Your task to perform on an android device: add a contact in the contacts app Image 0: 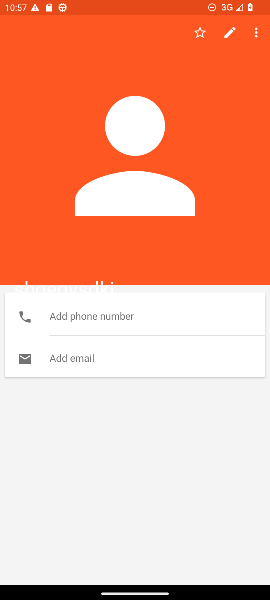
Step 0: press home button
Your task to perform on an android device: add a contact in the contacts app Image 1: 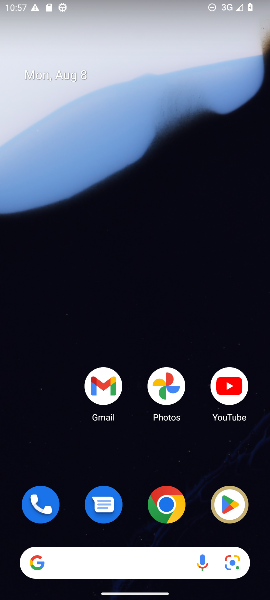
Step 1: drag from (137, 506) to (116, 141)
Your task to perform on an android device: add a contact in the contacts app Image 2: 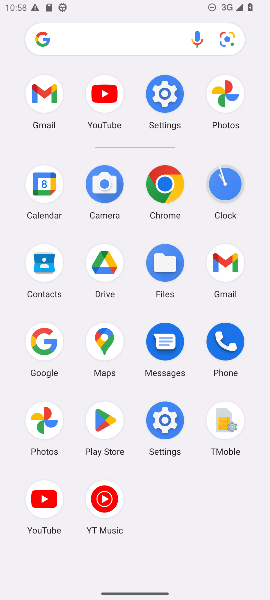
Step 2: click (52, 271)
Your task to perform on an android device: add a contact in the contacts app Image 3: 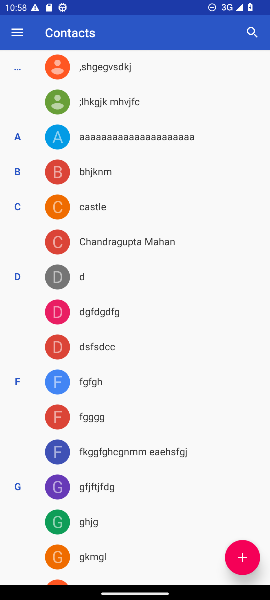
Step 3: click (245, 558)
Your task to perform on an android device: add a contact in the contacts app Image 4: 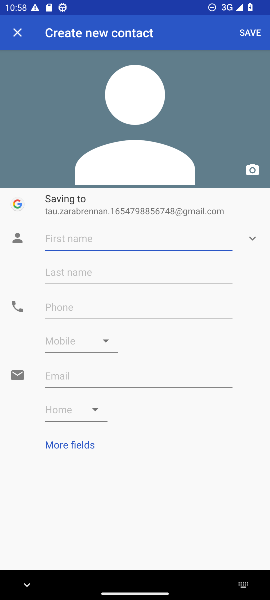
Step 4: type "dalme"
Your task to perform on an android device: add a contact in the contacts app Image 5: 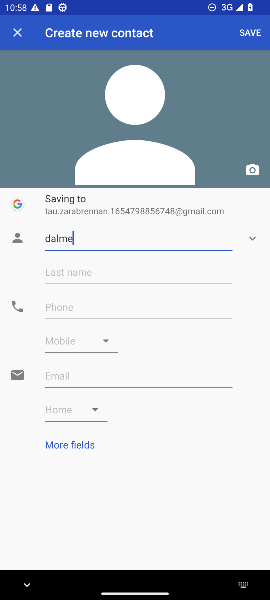
Step 5: click (251, 31)
Your task to perform on an android device: add a contact in the contacts app Image 6: 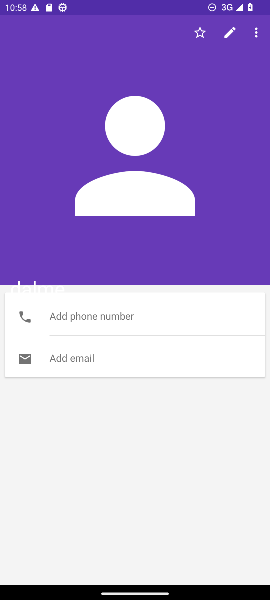
Step 6: task complete